Your task to perform on an android device: turn off notifications settings in the gmail app Image 0: 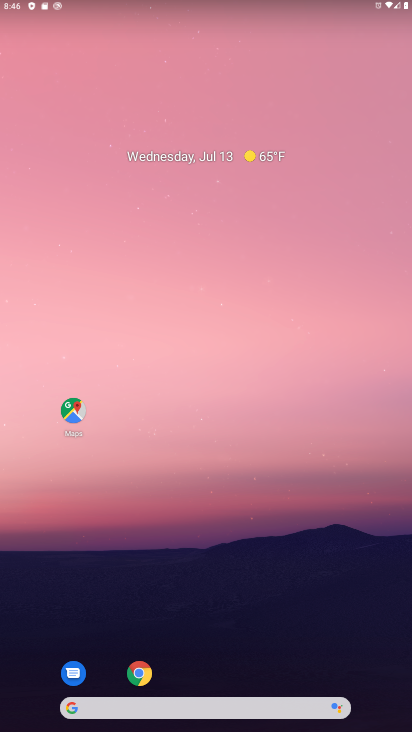
Step 0: drag from (201, 708) to (280, 270)
Your task to perform on an android device: turn off notifications settings in the gmail app Image 1: 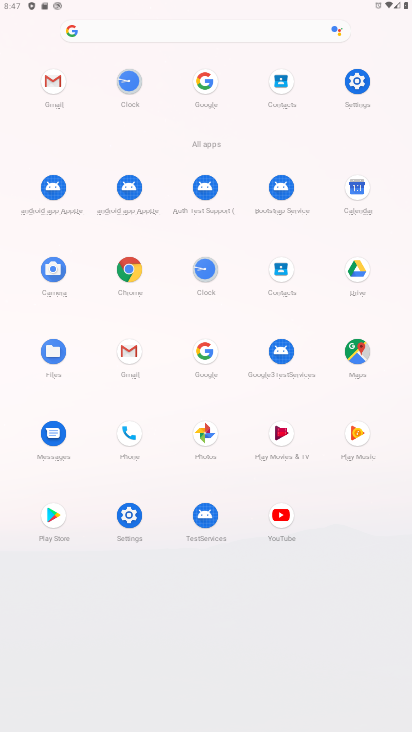
Step 1: click (51, 81)
Your task to perform on an android device: turn off notifications settings in the gmail app Image 2: 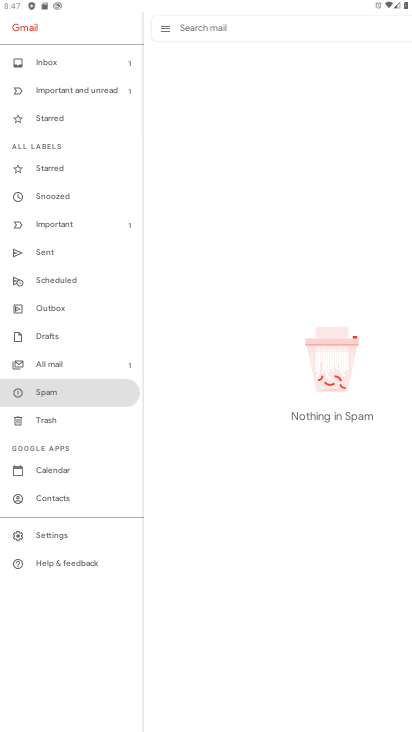
Step 2: click (47, 536)
Your task to perform on an android device: turn off notifications settings in the gmail app Image 3: 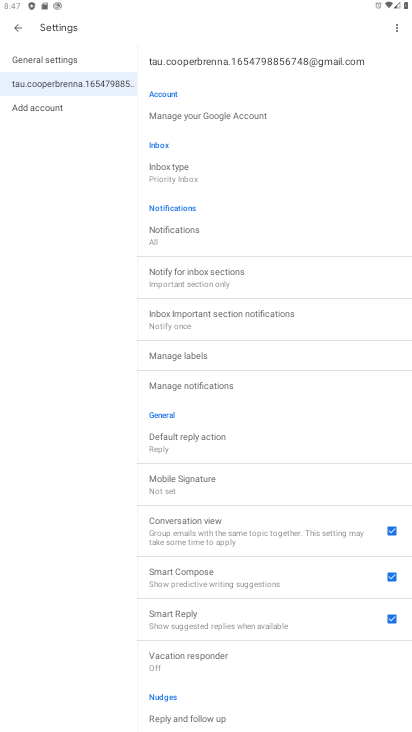
Step 3: click (195, 389)
Your task to perform on an android device: turn off notifications settings in the gmail app Image 4: 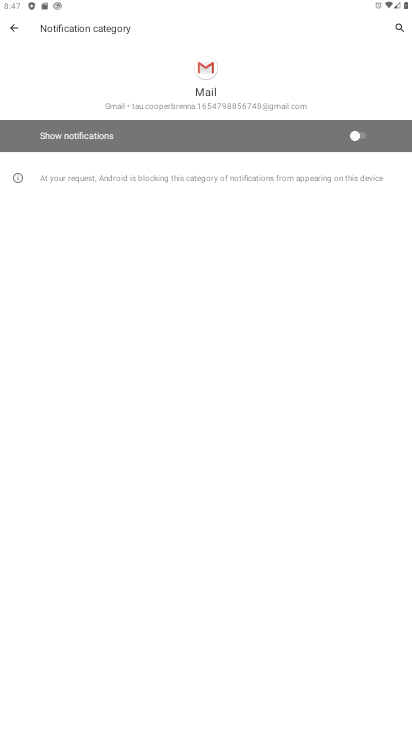
Step 4: task complete